Your task to perform on an android device: Open notification settings Image 0: 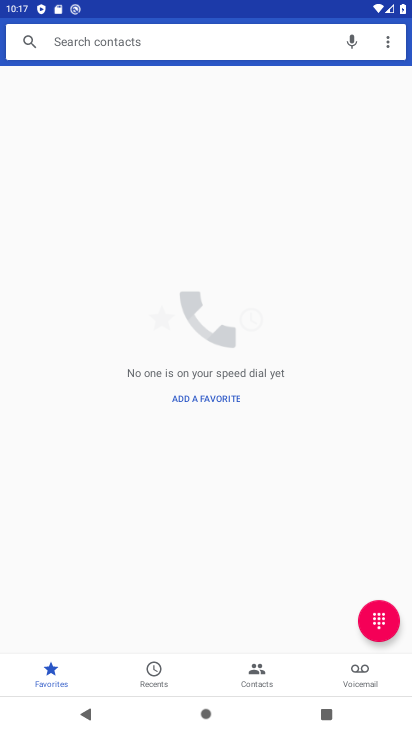
Step 0: press home button
Your task to perform on an android device: Open notification settings Image 1: 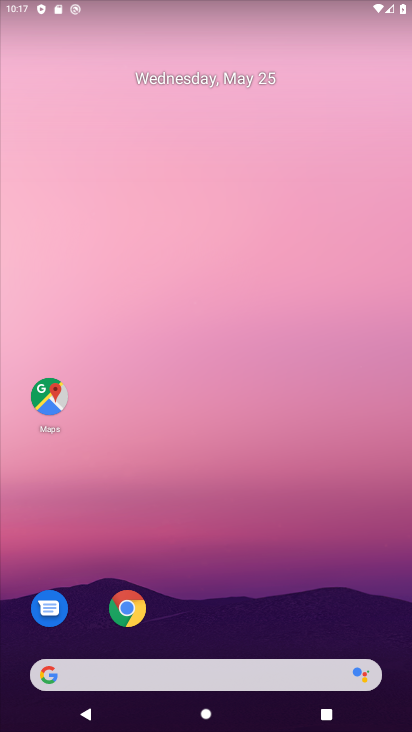
Step 1: drag from (246, 614) to (231, 79)
Your task to perform on an android device: Open notification settings Image 2: 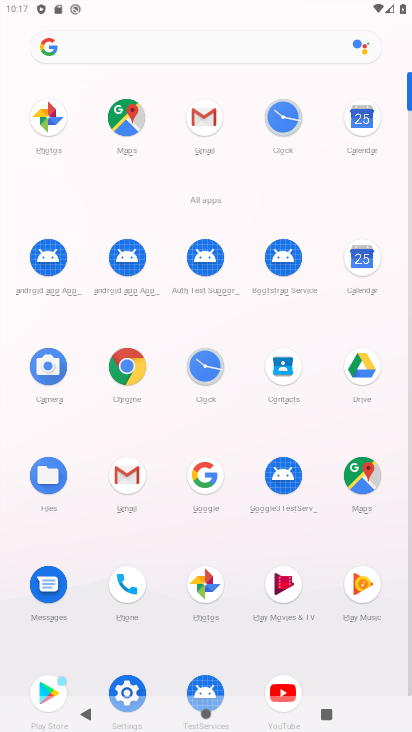
Step 2: drag from (175, 559) to (160, 375)
Your task to perform on an android device: Open notification settings Image 3: 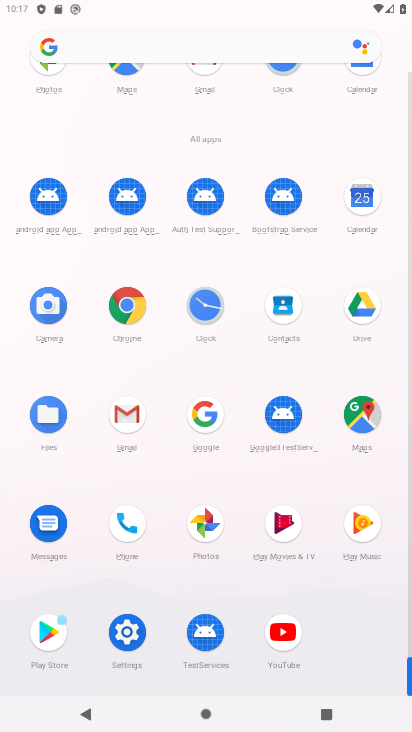
Step 3: click (128, 631)
Your task to perform on an android device: Open notification settings Image 4: 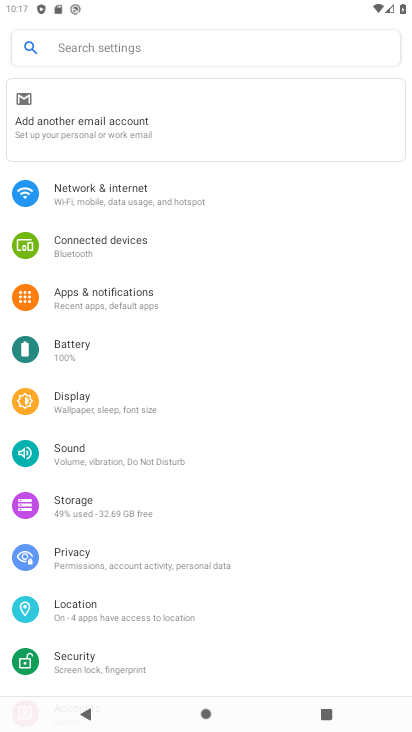
Step 4: drag from (101, 427) to (141, 346)
Your task to perform on an android device: Open notification settings Image 5: 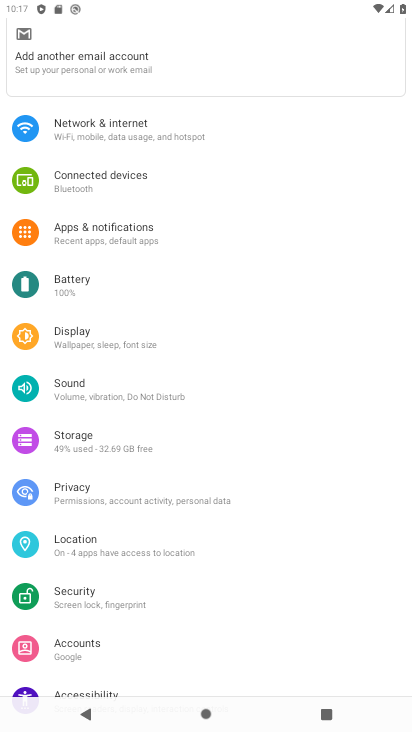
Step 5: click (132, 230)
Your task to perform on an android device: Open notification settings Image 6: 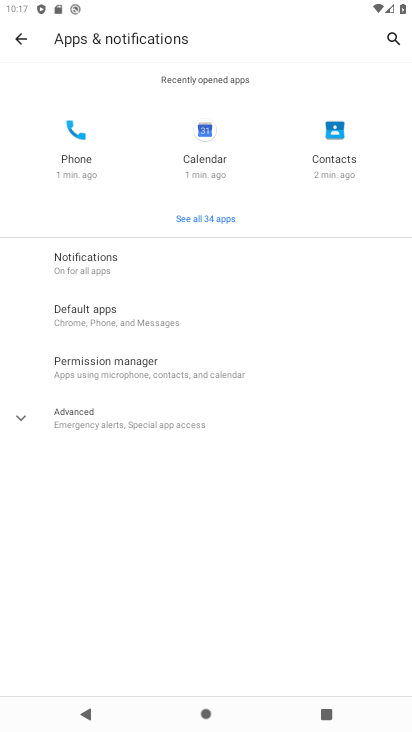
Step 6: click (105, 259)
Your task to perform on an android device: Open notification settings Image 7: 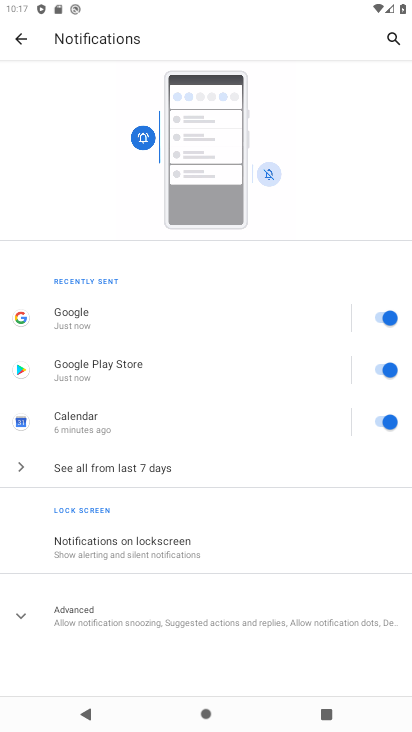
Step 7: task complete